Your task to perform on an android device: check data usage Image 0: 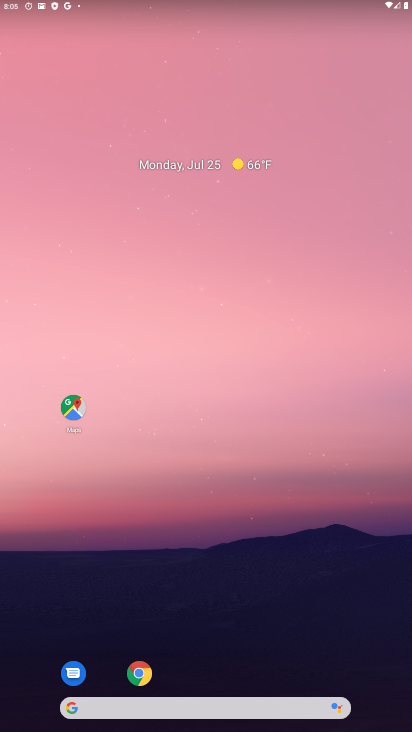
Step 0: drag from (175, 642) to (181, 119)
Your task to perform on an android device: check data usage Image 1: 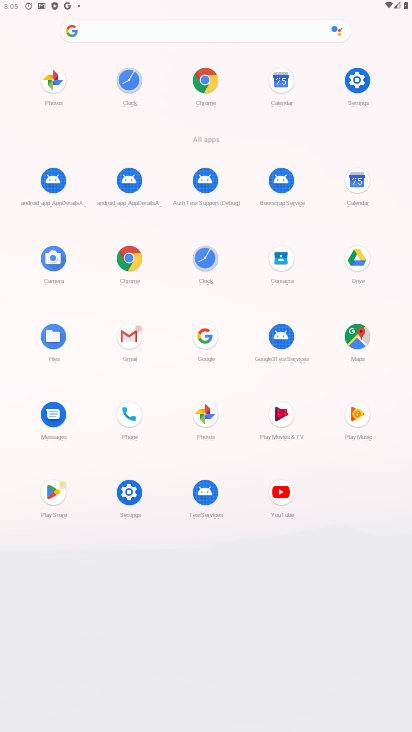
Step 1: click (351, 83)
Your task to perform on an android device: check data usage Image 2: 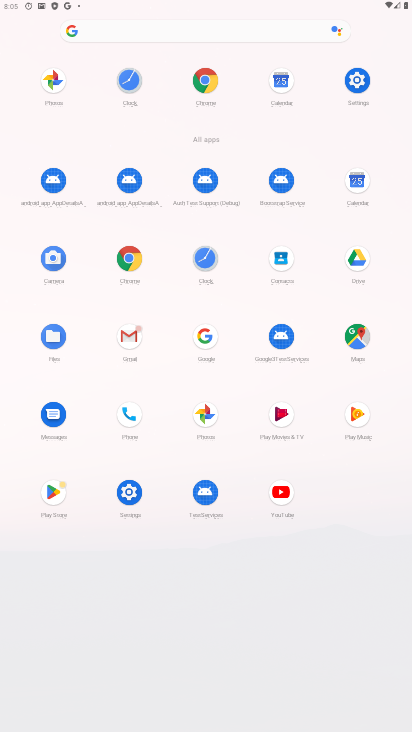
Step 2: click (351, 82)
Your task to perform on an android device: check data usage Image 3: 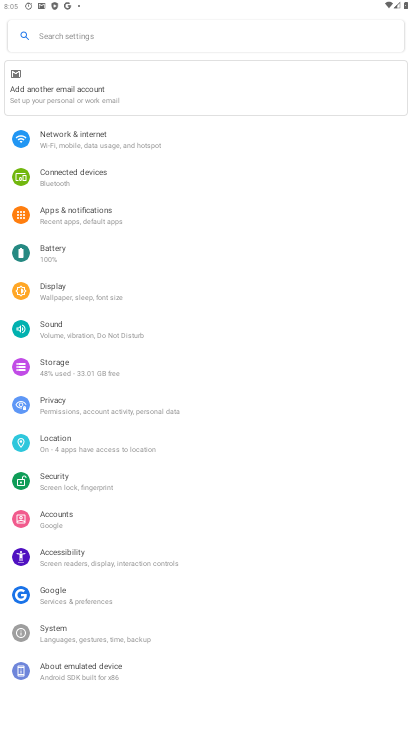
Step 3: click (76, 148)
Your task to perform on an android device: check data usage Image 4: 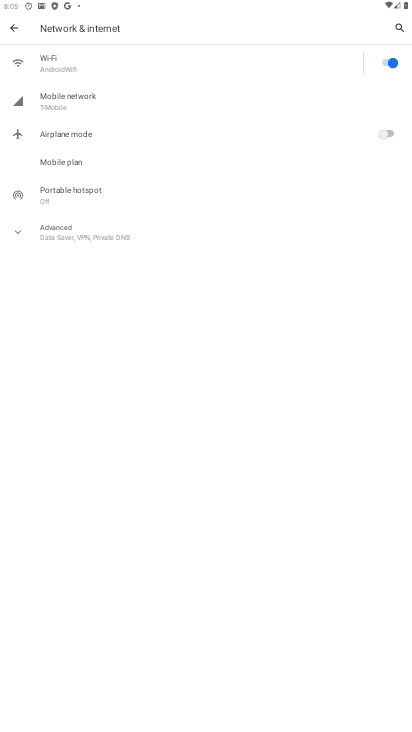
Step 4: click (116, 111)
Your task to perform on an android device: check data usage Image 5: 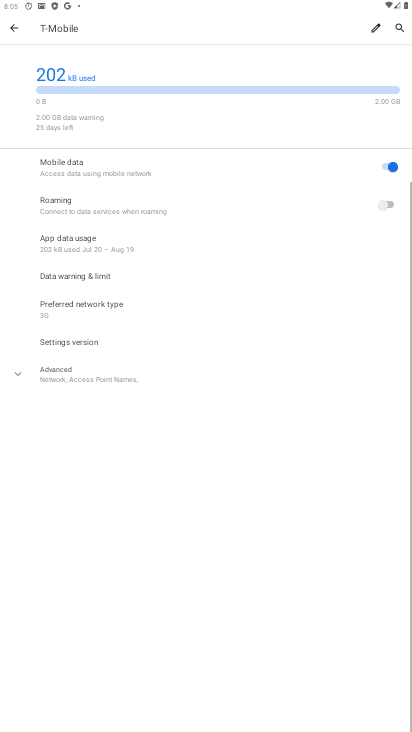
Step 5: task complete